Your task to perform on an android device: read, delete, or share a saved page in the chrome app Image 0: 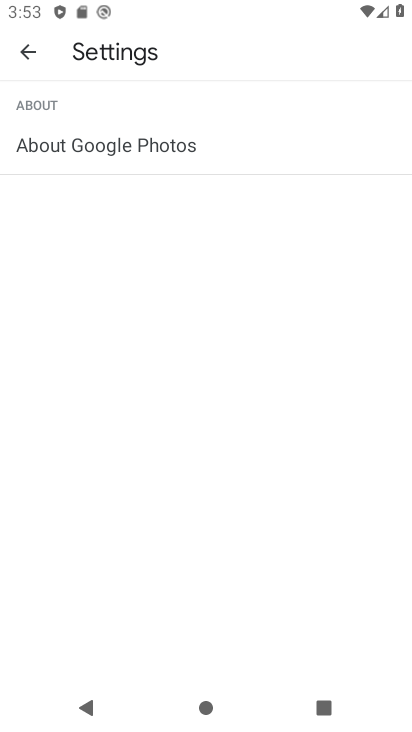
Step 0: press home button
Your task to perform on an android device: read, delete, or share a saved page in the chrome app Image 1: 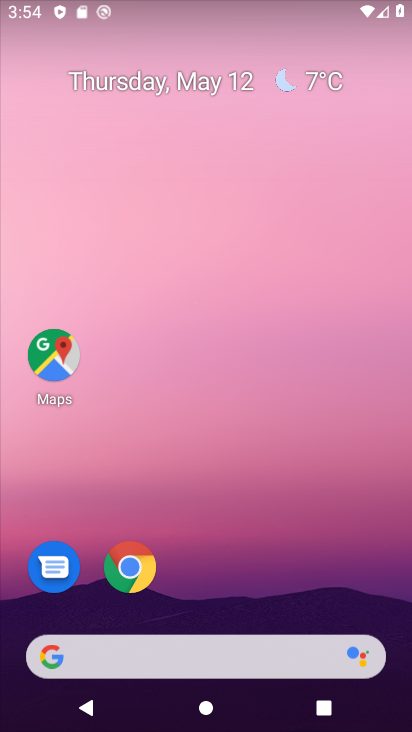
Step 1: click (124, 582)
Your task to perform on an android device: read, delete, or share a saved page in the chrome app Image 2: 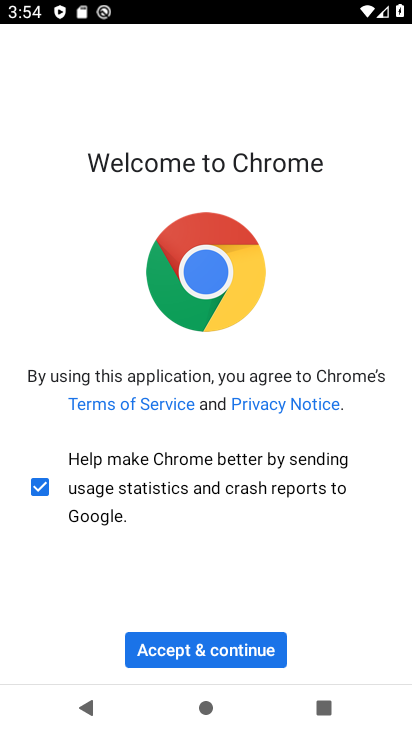
Step 2: click (226, 640)
Your task to perform on an android device: read, delete, or share a saved page in the chrome app Image 3: 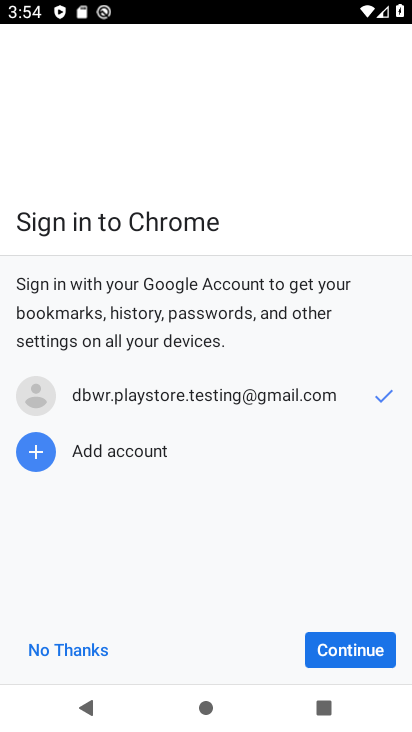
Step 3: click (392, 659)
Your task to perform on an android device: read, delete, or share a saved page in the chrome app Image 4: 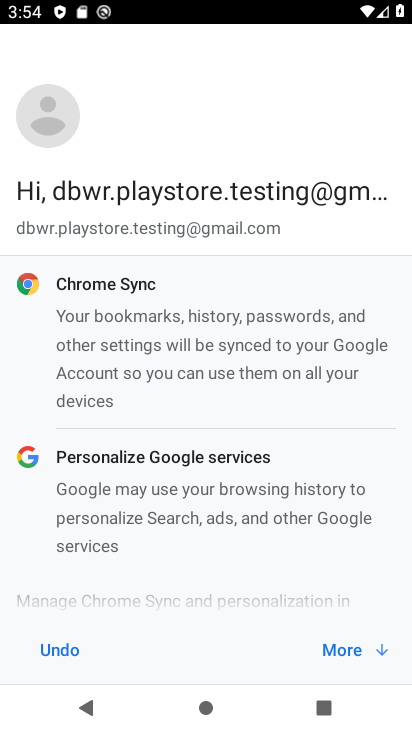
Step 4: click (381, 633)
Your task to perform on an android device: read, delete, or share a saved page in the chrome app Image 5: 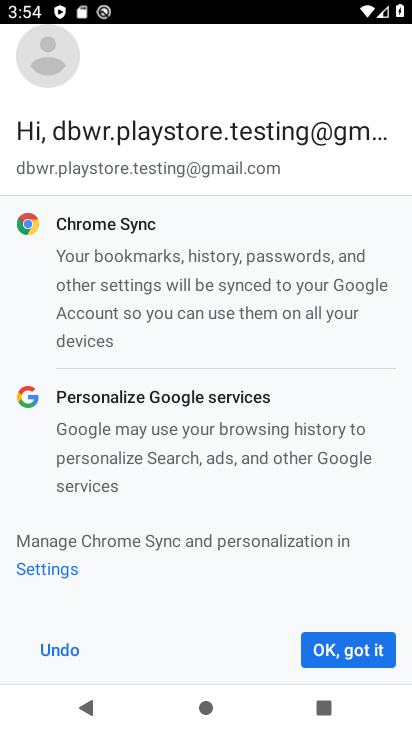
Step 5: click (381, 633)
Your task to perform on an android device: read, delete, or share a saved page in the chrome app Image 6: 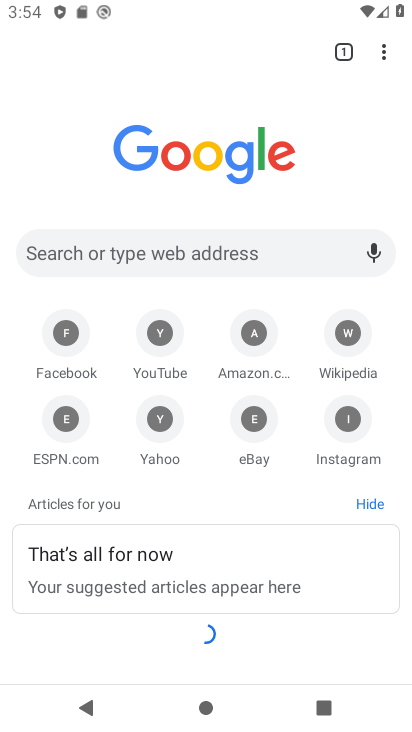
Step 6: task complete